Your task to perform on an android device: Open the stopwatch Image 0: 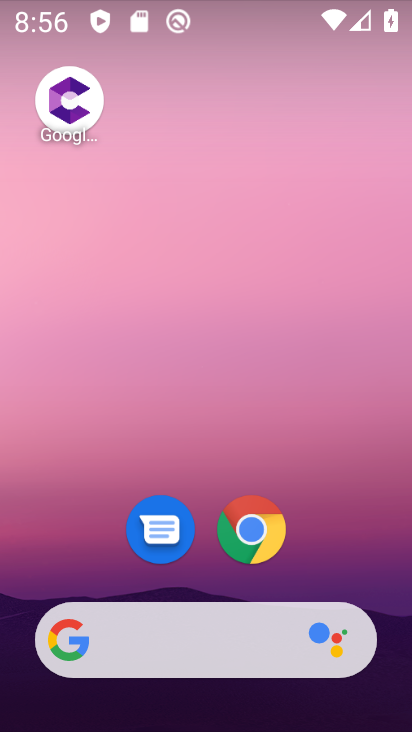
Step 0: drag from (230, 603) to (242, 147)
Your task to perform on an android device: Open the stopwatch Image 1: 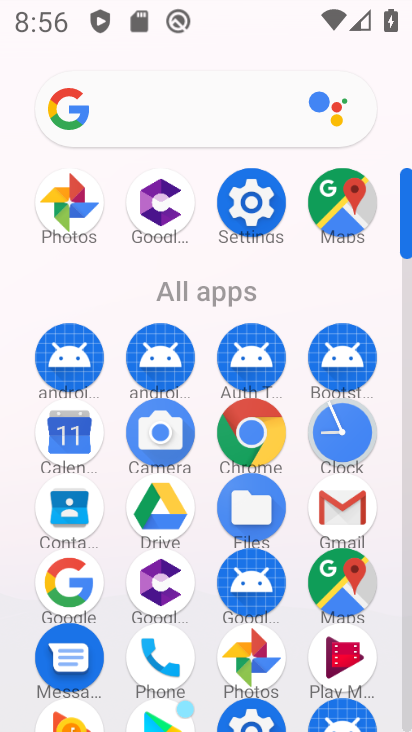
Step 1: click (357, 436)
Your task to perform on an android device: Open the stopwatch Image 2: 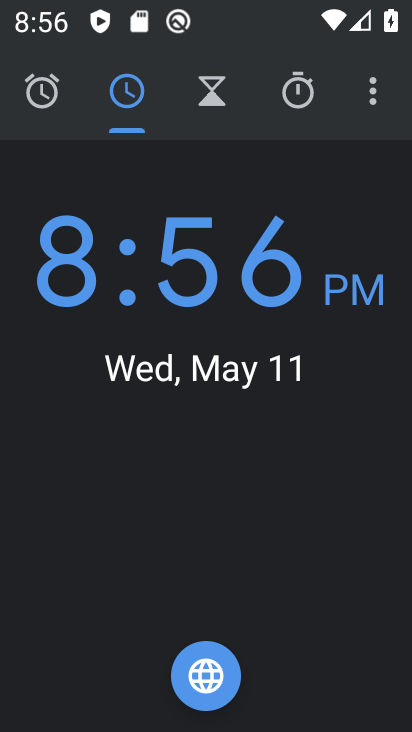
Step 2: click (288, 91)
Your task to perform on an android device: Open the stopwatch Image 3: 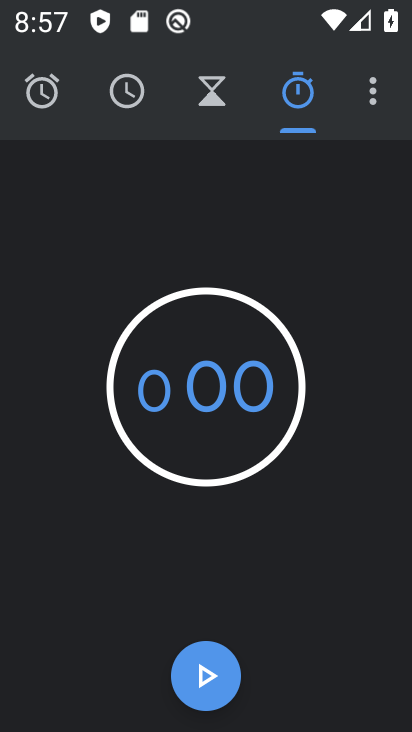
Step 3: task complete